Your task to perform on an android device: see sites visited before in the chrome app Image 0: 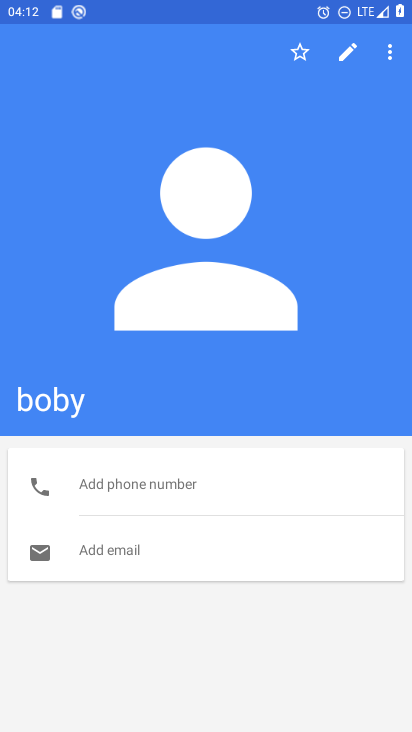
Step 0: press home button
Your task to perform on an android device: see sites visited before in the chrome app Image 1: 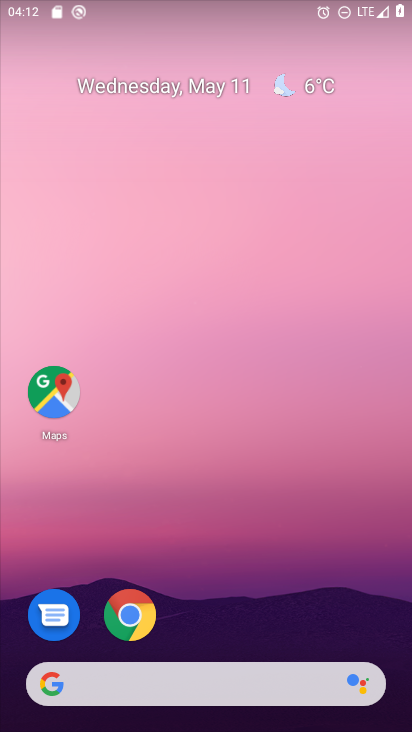
Step 1: click (126, 615)
Your task to perform on an android device: see sites visited before in the chrome app Image 2: 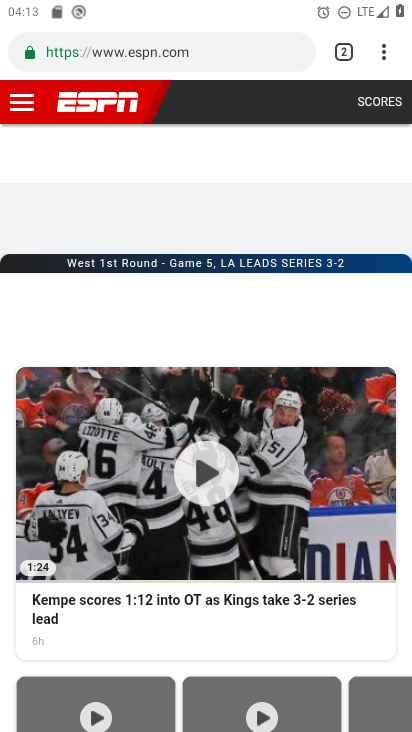
Step 2: task complete